Your task to perform on an android device: Go to Google maps Image 0: 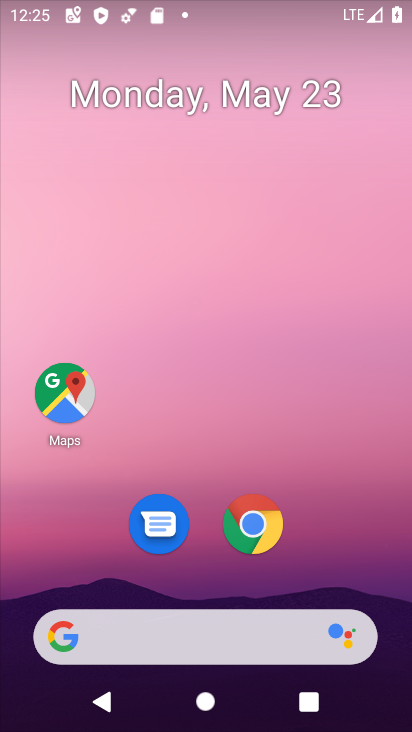
Step 0: click (60, 395)
Your task to perform on an android device: Go to Google maps Image 1: 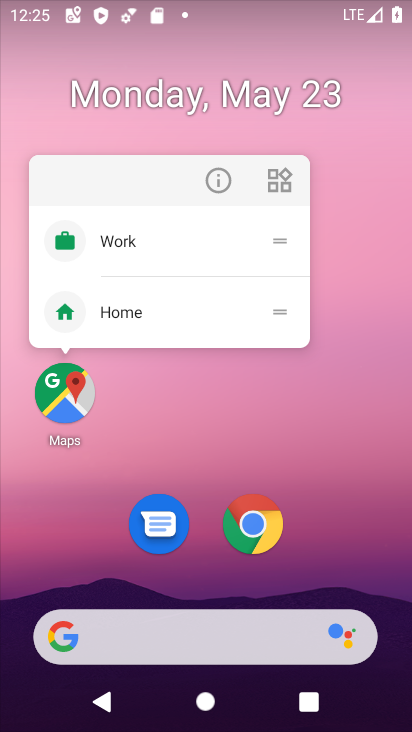
Step 1: click (60, 395)
Your task to perform on an android device: Go to Google maps Image 2: 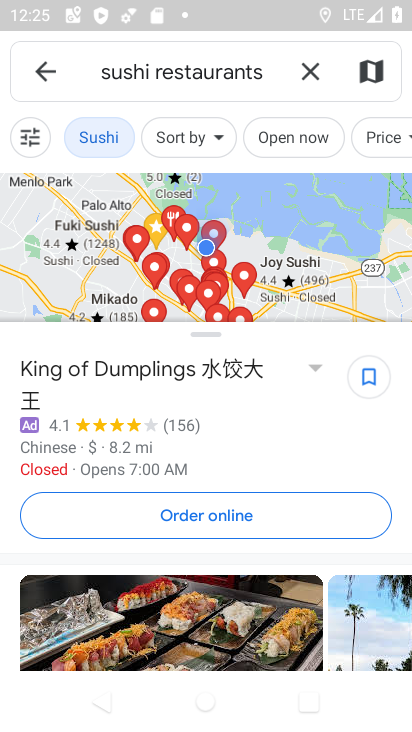
Step 2: click (304, 67)
Your task to perform on an android device: Go to Google maps Image 3: 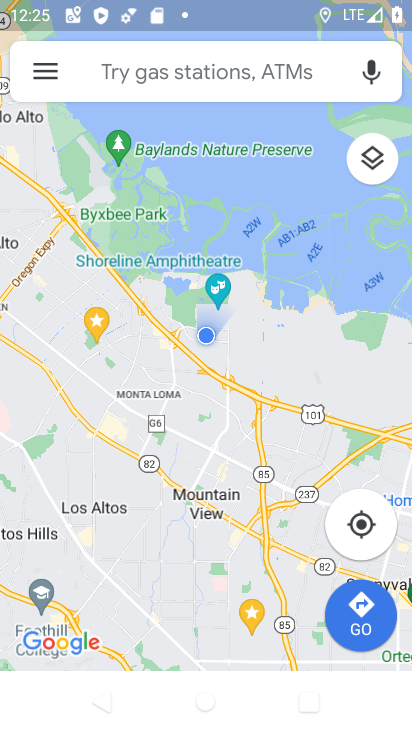
Step 3: task complete